Your task to perform on an android device: search for starred emails in the gmail app Image 0: 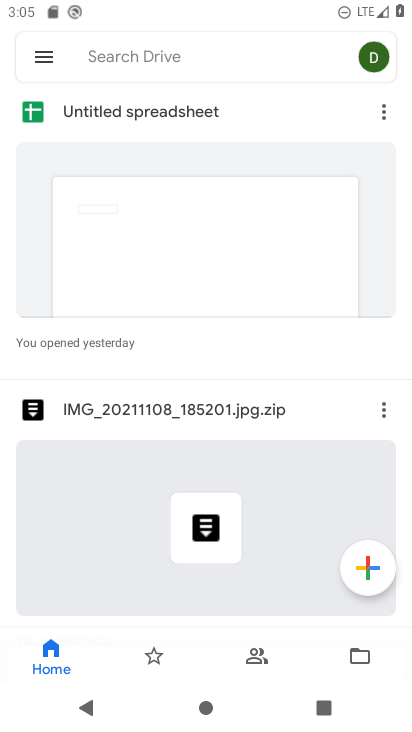
Step 0: press home button
Your task to perform on an android device: search for starred emails in the gmail app Image 1: 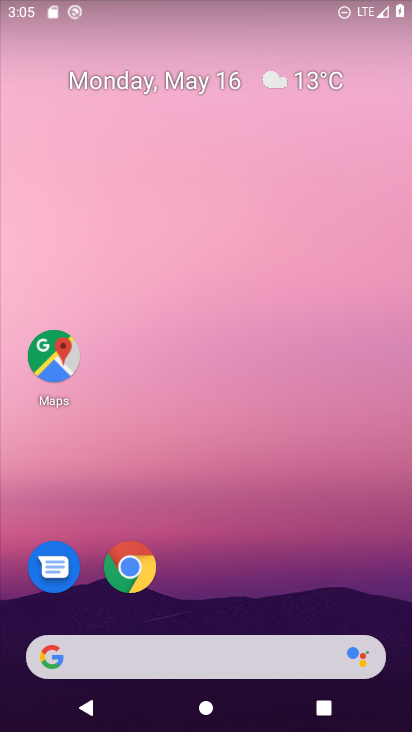
Step 1: drag from (223, 477) to (203, 13)
Your task to perform on an android device: search for starred emails in the gmail app Image 2: 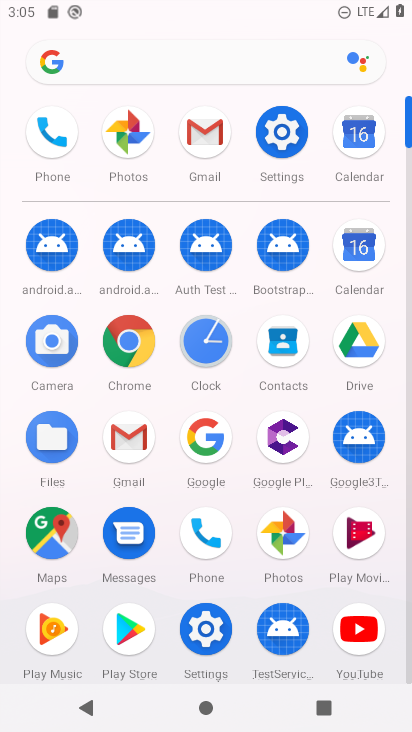
Step 2: click (128, 439)
Your task to perform on an android device: search for starred emails in the gmail app Image 3: 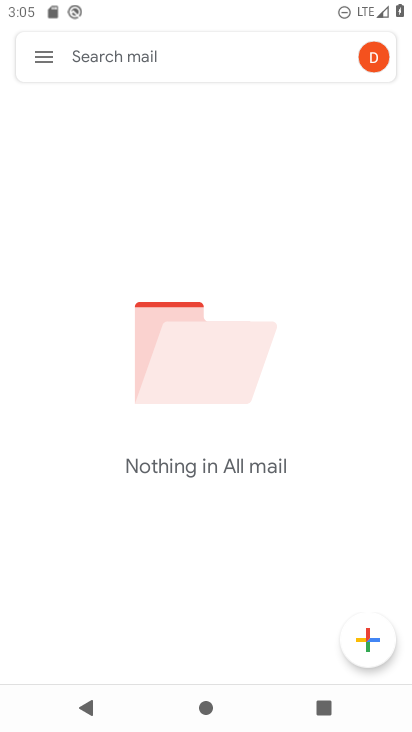
Step 3: click (50, 51)
Your task to perform on an android device: search for starred emails in the gmail app Image 4: 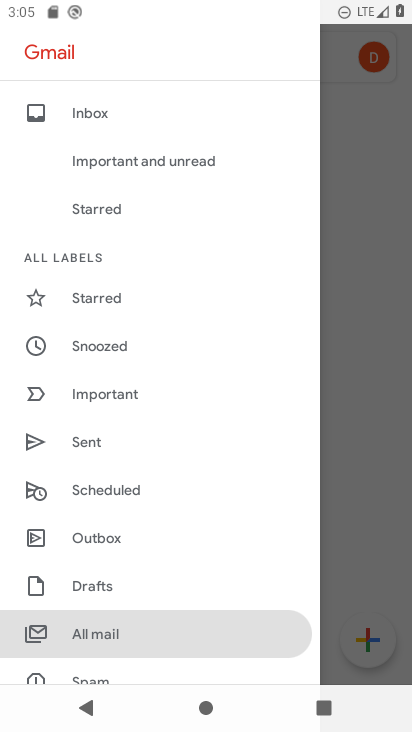
Step 4: click (103, 294)
Your task to perform on an android device: search for starred emails in the gmail app Image 5: 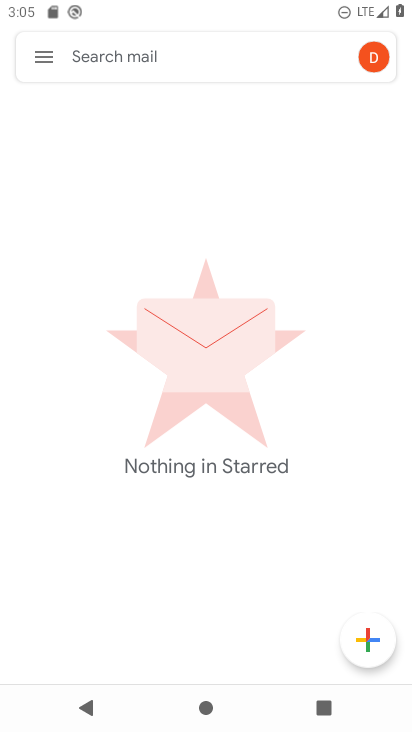
Step 5: task complete